Your task to perform on an android device: Open calendar and show me the third week of next month Image 0: 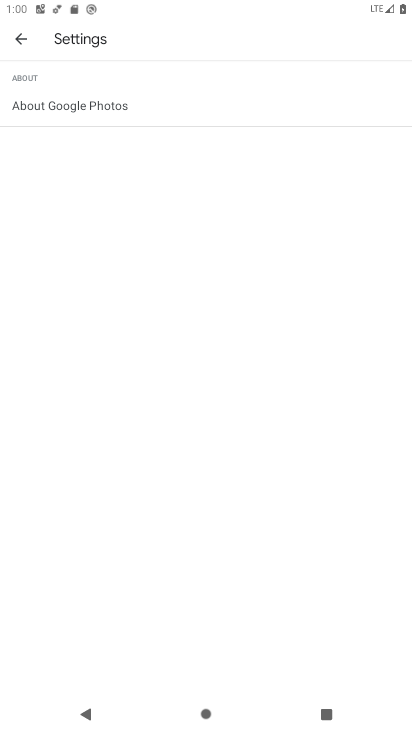
Step 0: press home button
Your task to perform on an android device: Open calendar and show me the third week of next month Image 1: 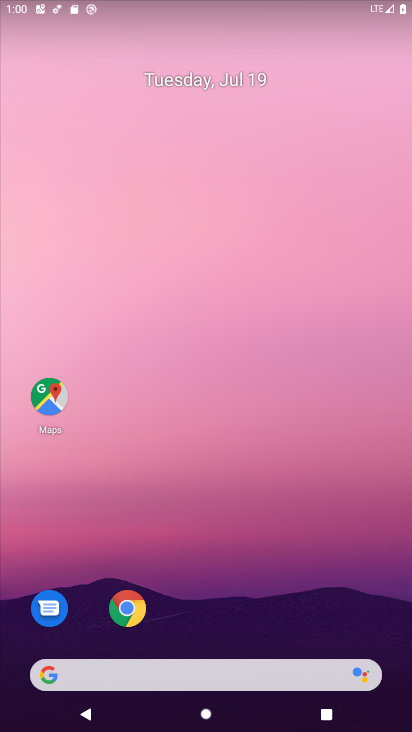
Step 1: drag from (200, 598) to (274, 295)
Your task to perform on an android device: Open calendar and show me the third week of next month Image 2: 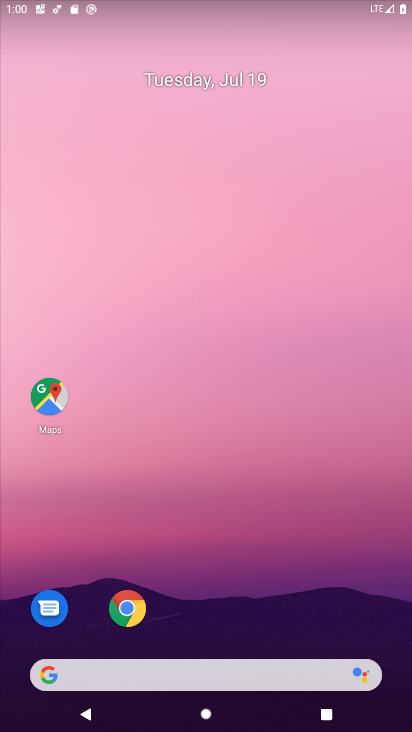
Step 2: drag from (231, 608) to (243, 86)
Your task to perform on an android device: Open calendar and show me the third week of next month Image 3: 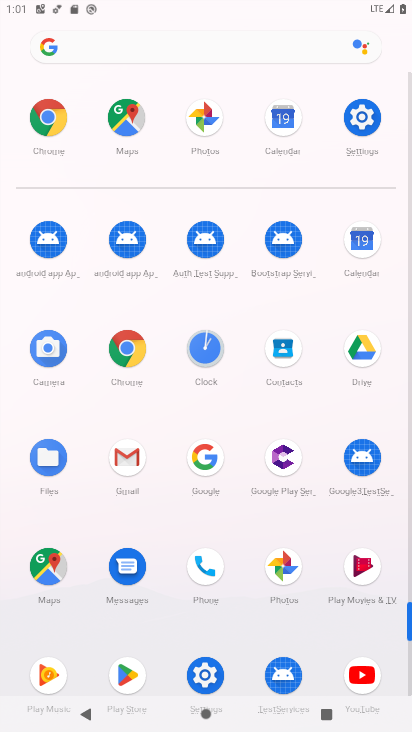
Step 3: click (371, 252)
Your task to perform on an android device: Open calendar and show me the third week of next month Image 4: 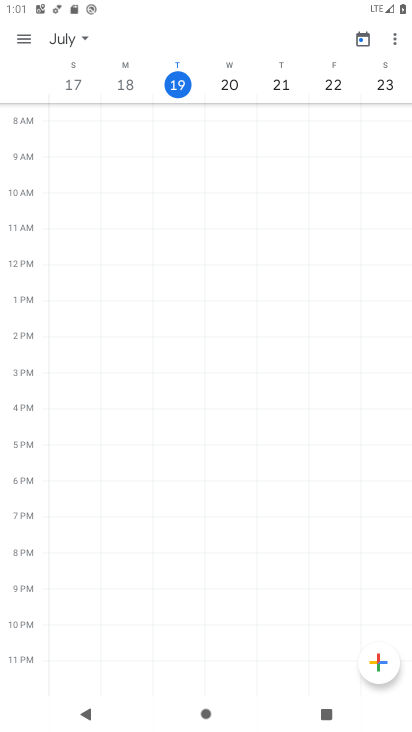
Step 4: click (84, 37)
Your task to perform on an android device: Open calendar and show me the third week of next month Image 5: 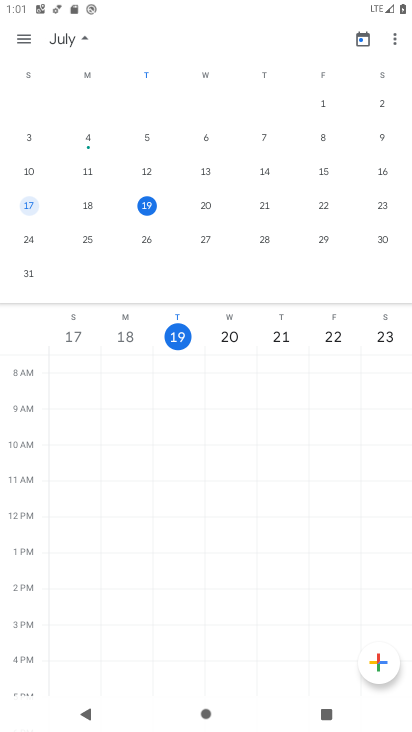
Step 5: drag from (328, 160) to (6, 178)
Your task to perform on an android device: Open calendar and show me the third week of next month Image 6: 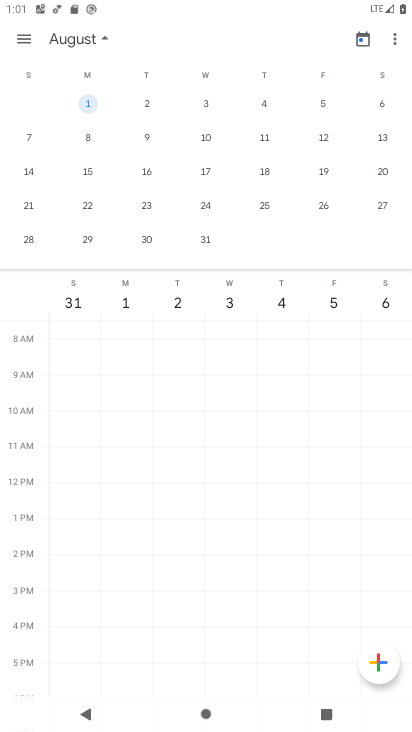
Step 6: click (29, 177)
Your task to perform on an android device: Open calendar and show me the third week of next month Image 7: 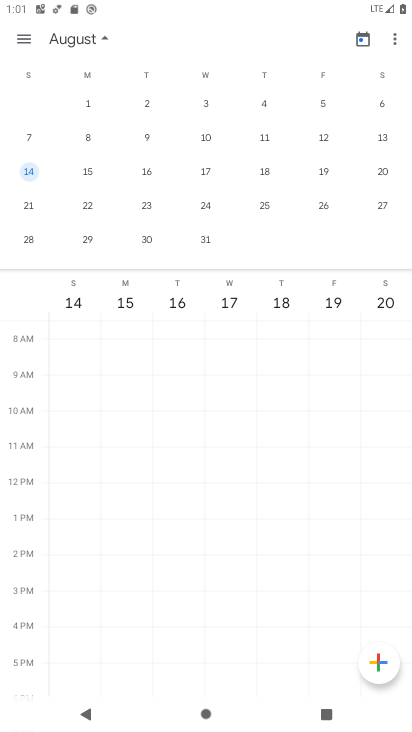
Step 7: click (104, 40)
Your task to perform on an android device: Open calendar and show me the third week of next month Image 8: 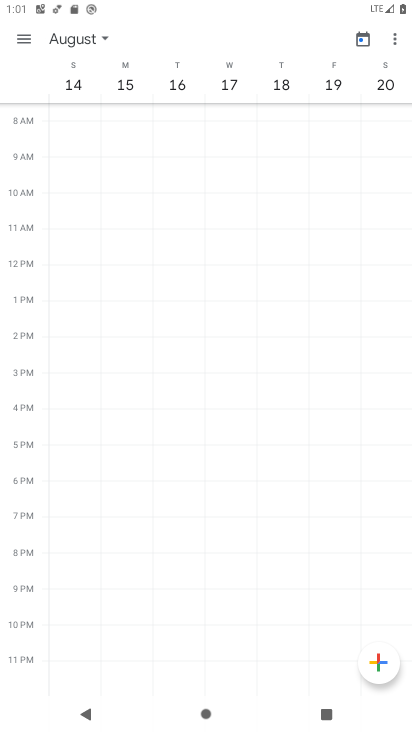
Step 8: task complete